Your task to perform on an android device: Show me the alarms in the clock app Image 0: 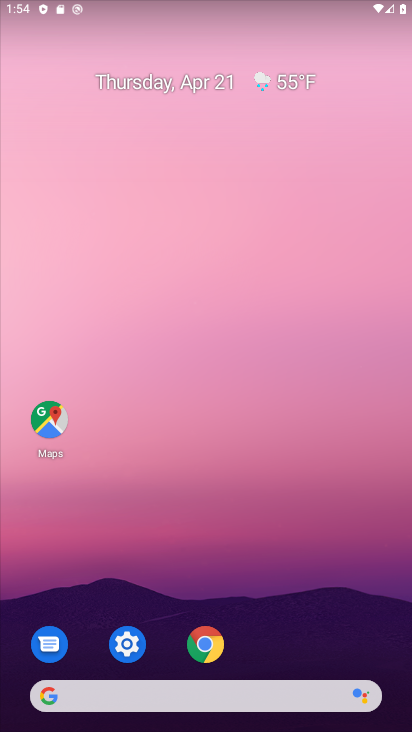
Step 0: drag from (232, 692) to (153, 107)
Your task to perform on an android device: Show me the alarms in the clock app Image 1: 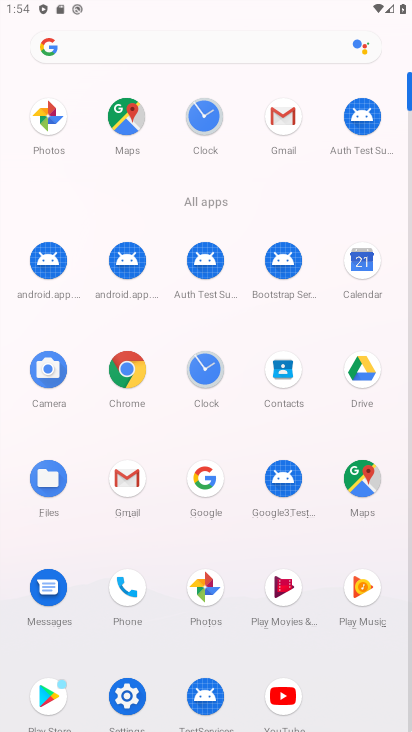
Step 1: click (199, 372)
Your task to perform on an android device: Show me the alarms in the clock app Image 2: 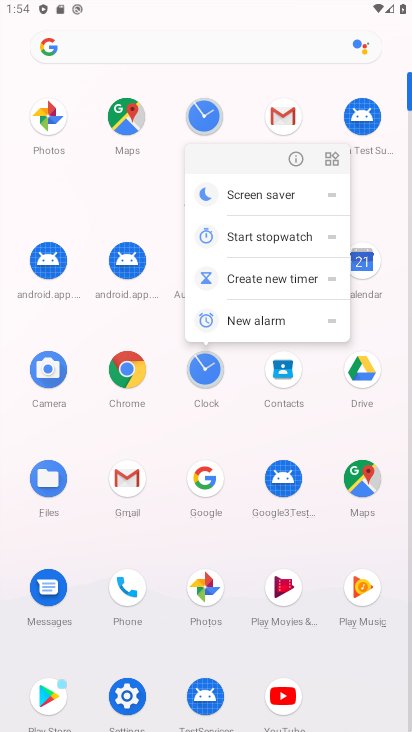
Step 2: click (208, 370)
Your task to perform on an android device: Show me the alarms in the clock app Image 3: 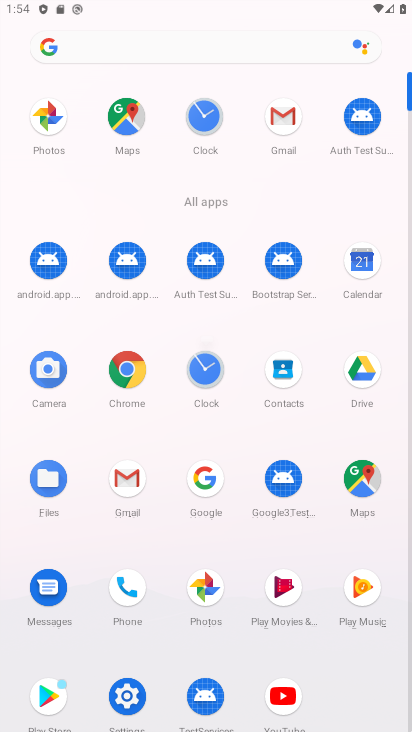
Step 3: click (208, 370)
Your task to perform on an android device: Show me the alarms in the clock app Image 4: 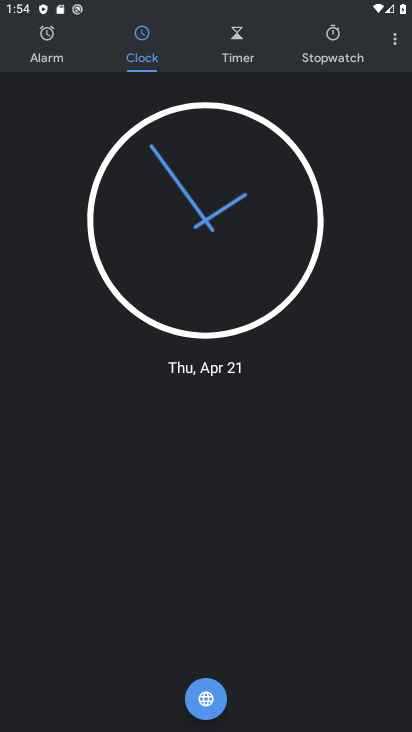
Step 4: click (54, 43)
Your task to perform on an android device: Show me the alarms in the clock app Image 5: 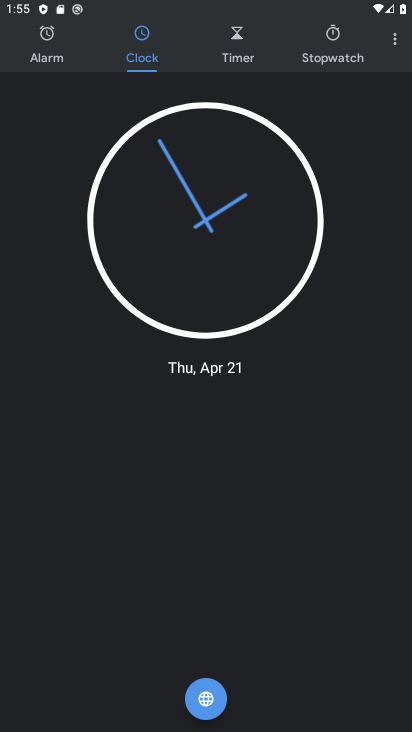
Step 5: click (46, 59)
Your task to perform on an android device: Show me the alarms in the clock app Image 6: 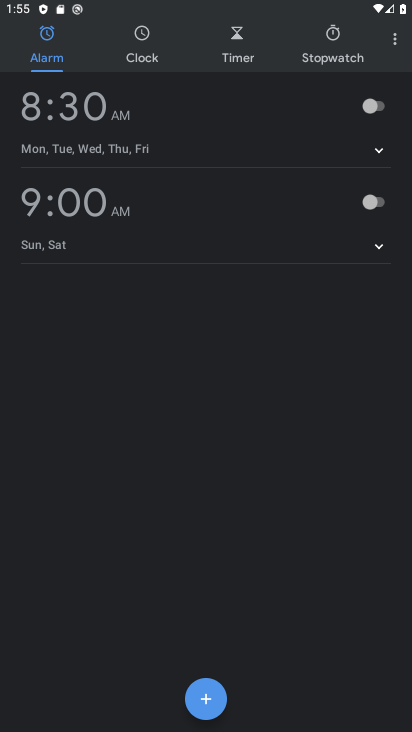
Step 6: click (46, 59)
Your task to perform on an android device: Show me the alarms in the clock app Image 7: 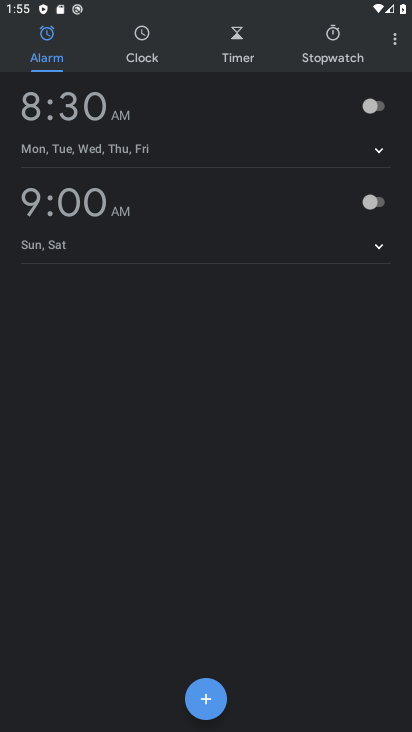
Step 7: task complete